Your task to perform on an android device: turn on sleep mode Image 0: 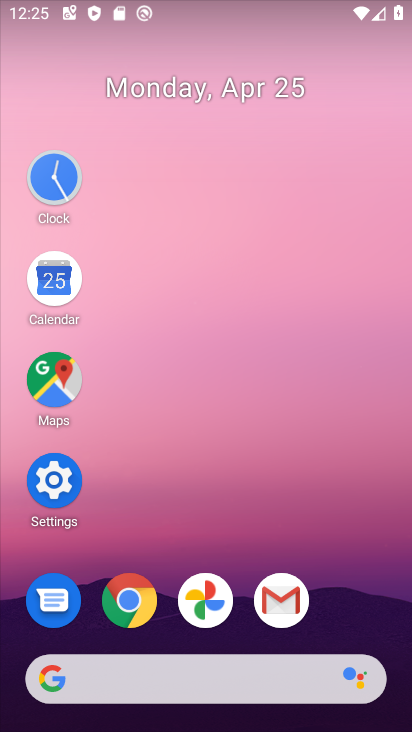
Step 0: click (48, 481)
Your task to perform on an android device: turn on sleep mode Image 1: 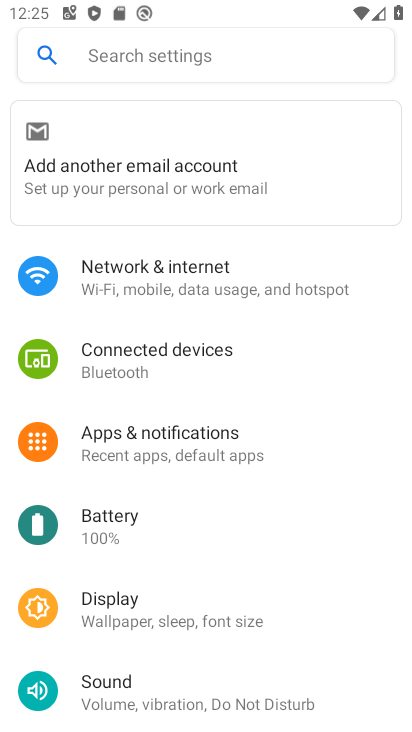
Step 1: click (100, 599)
Your task to perform on an android device: turn on sleep mode Image 2: 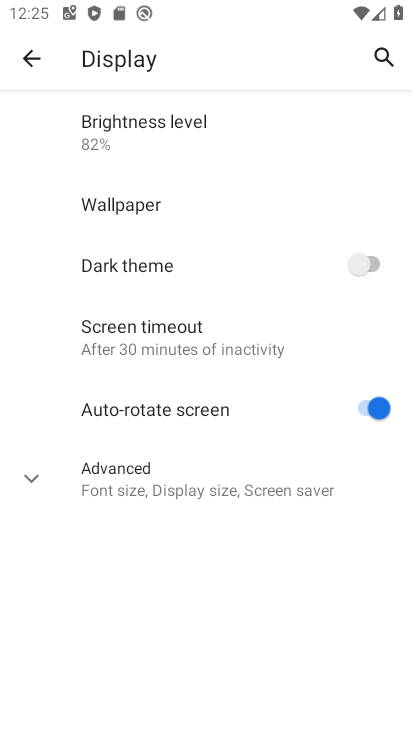
Step 2: task complete